Your task to perform on an android device: see tabs open on other devices in the chrome app Image 0: 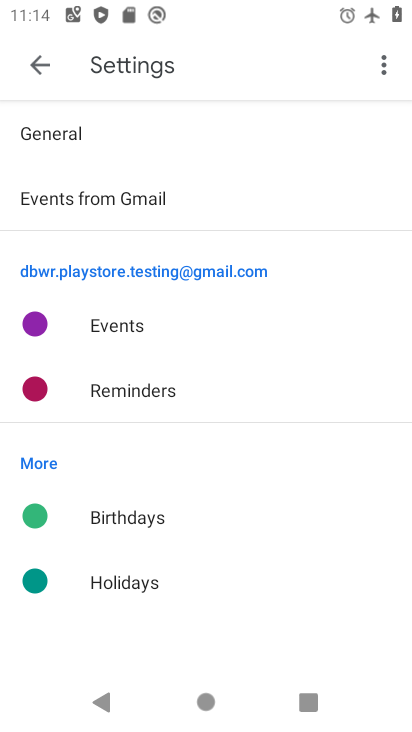
Step 0: press home button
Your task to perform on an android device: see tabs open on other devices in the chrome app Image 1: 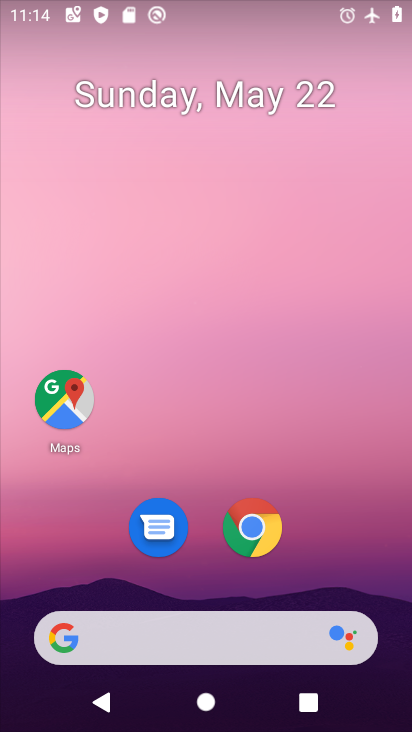
Step 1: click (249, 544)
Your task to perform on an android device: see tabs open on other devices in the chrome app Image 2: 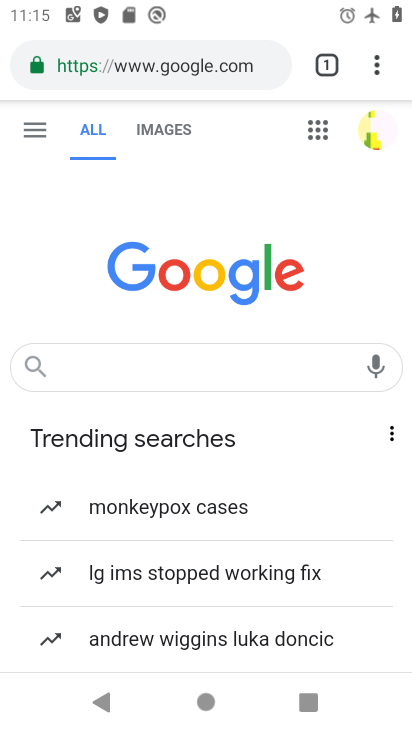
Step 2: click (378, 74)
Your task to perform on an android device: see tabs open on other devices in the chrome app Image 3: 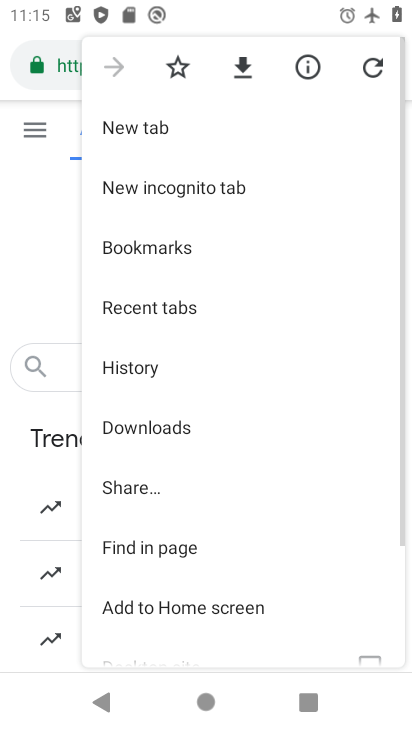
Step 3: click (248, 309)
Your task to perform on an android device: see tabs open on other devices in the chrome app Image 4: 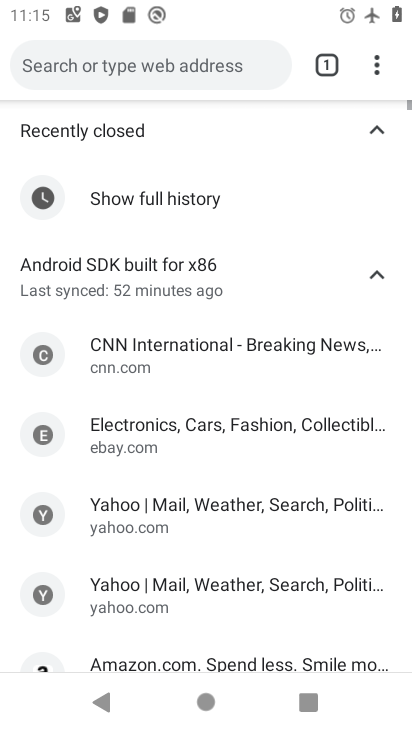
Step 4: task complete